Your task to perform on an android device: turn notification dots on Image 0: 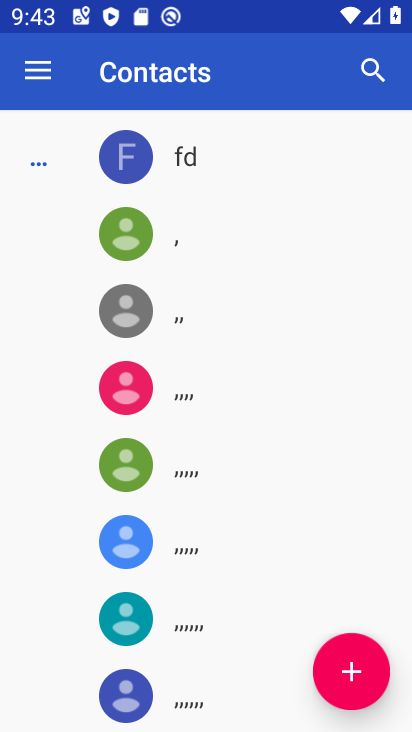
Step 0: press back button
Your task to perform on an android device: turn notification dots on Image 1: 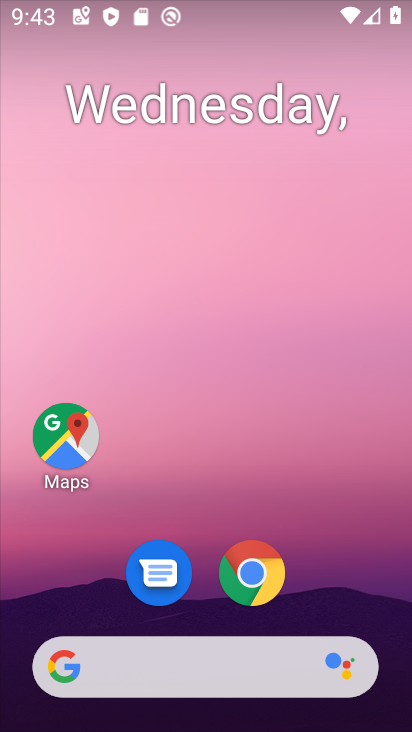
Step 1: click (257, 573)
Your task to perform on an android device: turn notification dots on Image 2: 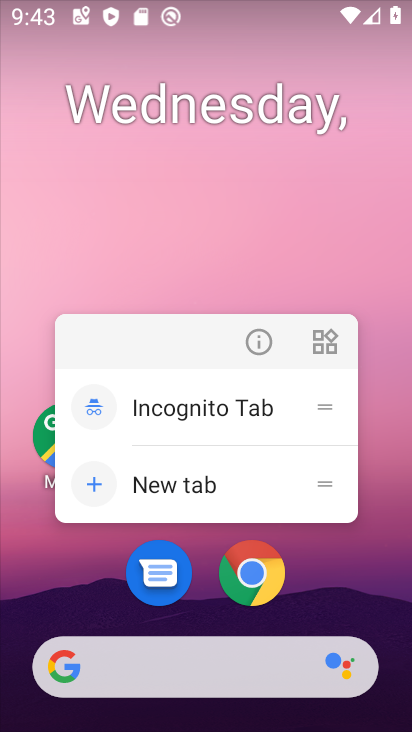
Step 2: click (369, 239)
Your task to perform on an android device: turn notification dots on Image 3: 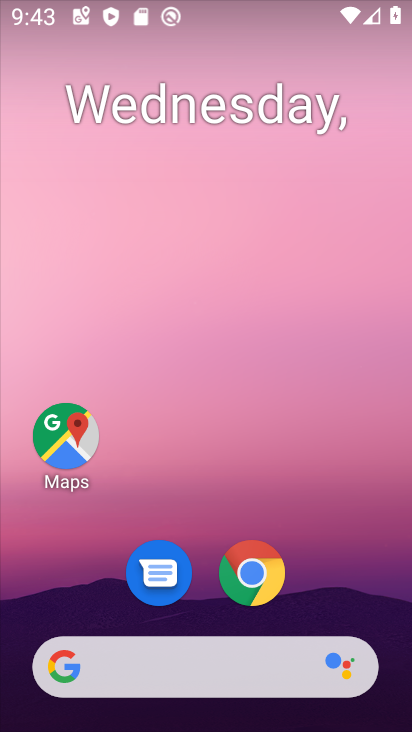
Step 3: drag from (191, 614) to (236, 246)
Your task to perform on an android device: turn notification dots on Image 4: 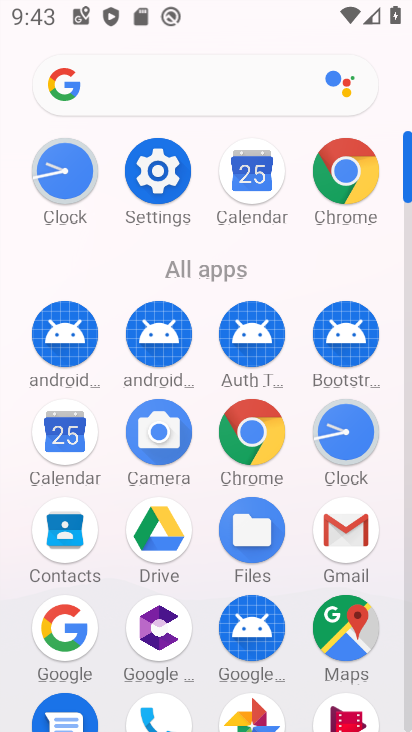
Step 4: click (157, 170)
Your task to perform on an android device: turn notification dots on Image 5: 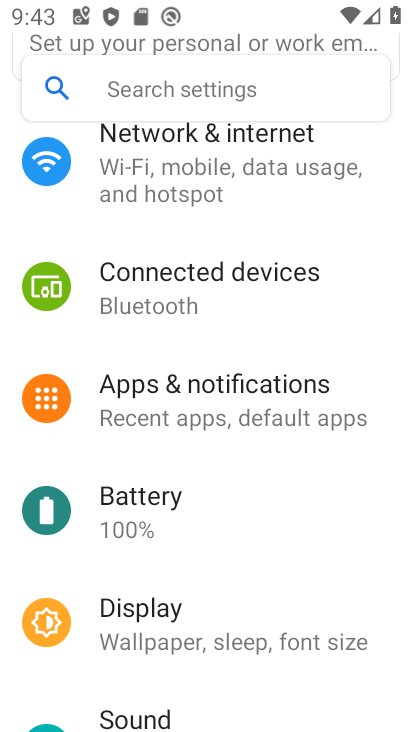
Step 5: click (190, 90)
Your task to perform on an android device: turn notification dots on Image 6: 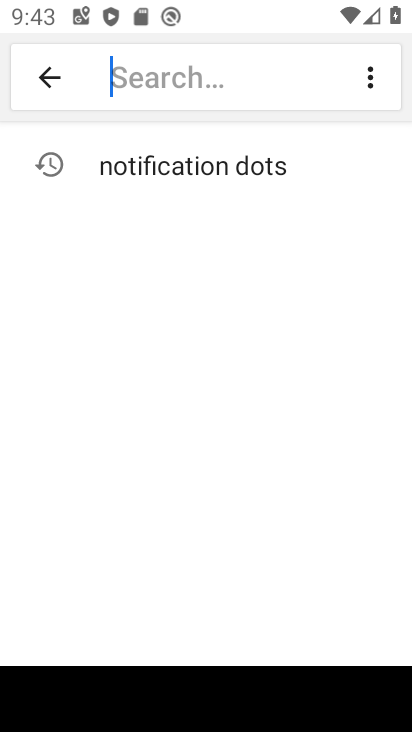
Step 6: click (238, 159)
Your task to perform on an android device: turn notification dots on Image 7: 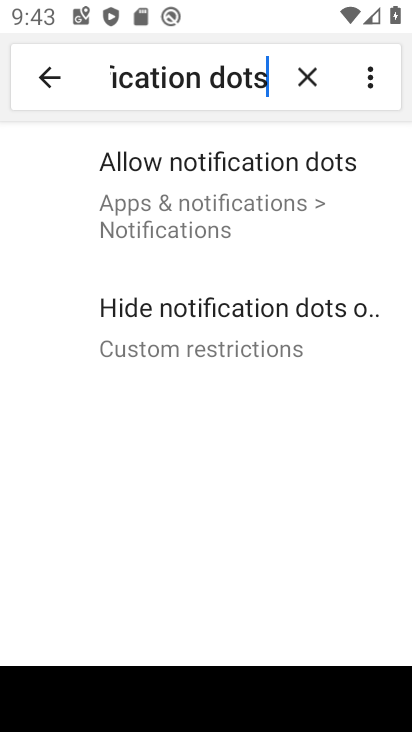
Step 7: click (247, 177)
Your task to perform on an android device: turn notification dots on Image 8: 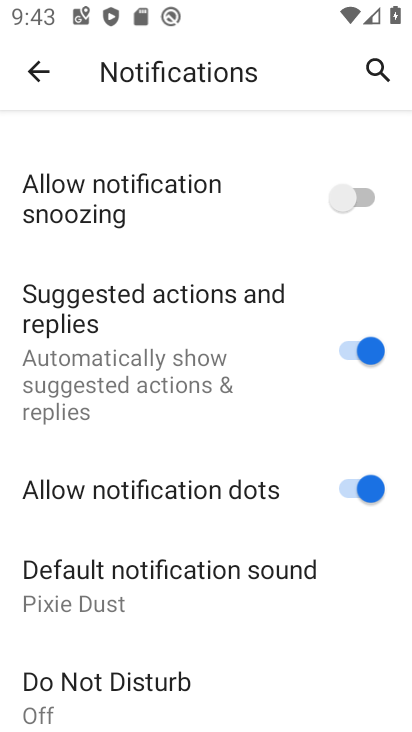
Step 8: task complete